Your task to perform on an android device: add a contact in the contacts app Image 0: 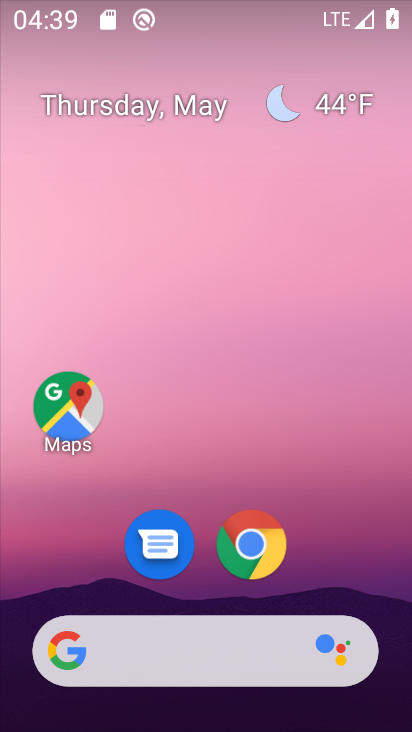
Step 0: drag from (313, 571) to (348, 48)
Your task to perform on an android device: add a contact in the contacts app Image 1: 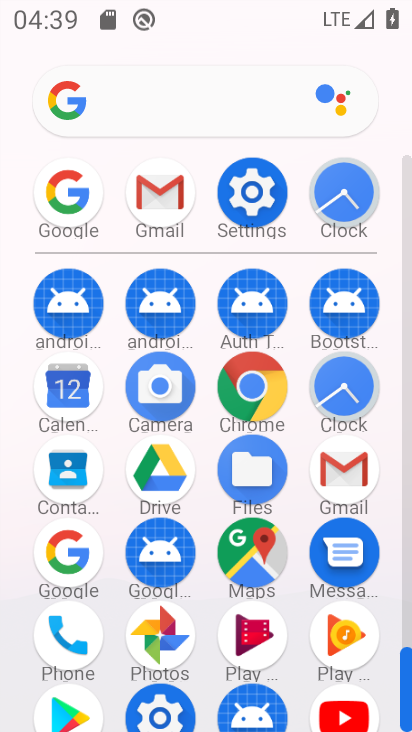
Step 1: click (55, 473)
Your task to perform on an android device: add a contact in the contacts app Image 2: 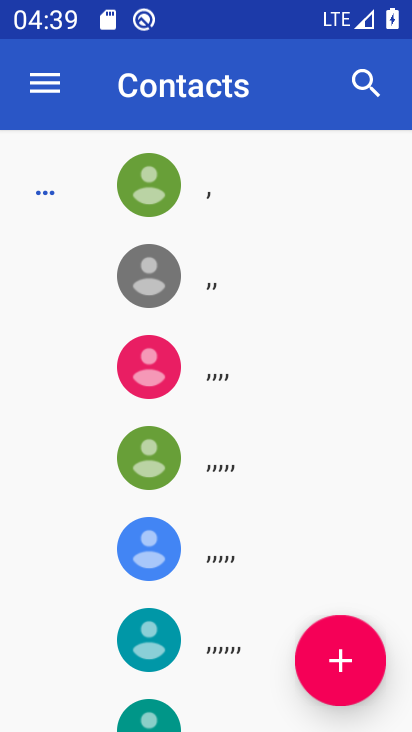
Step 2: click (320, 663)
Your task to perform on an android device: add a contact in the contacts app Image 3: 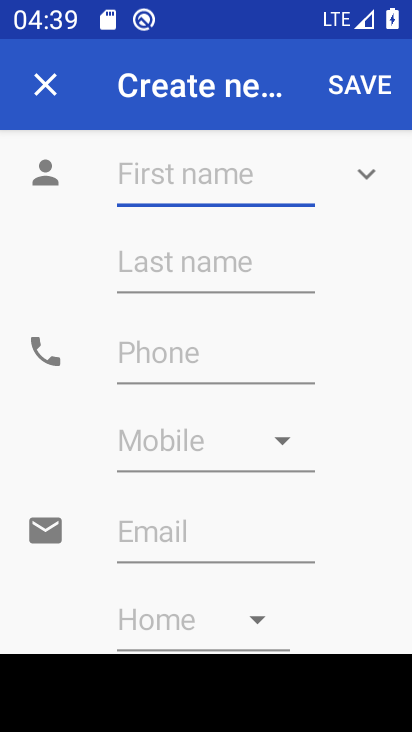
Step 3: type "rtyuiyyttyuiioiuytyu"
Your task to perform on an android device: add a contact in the contacts app Image 4: 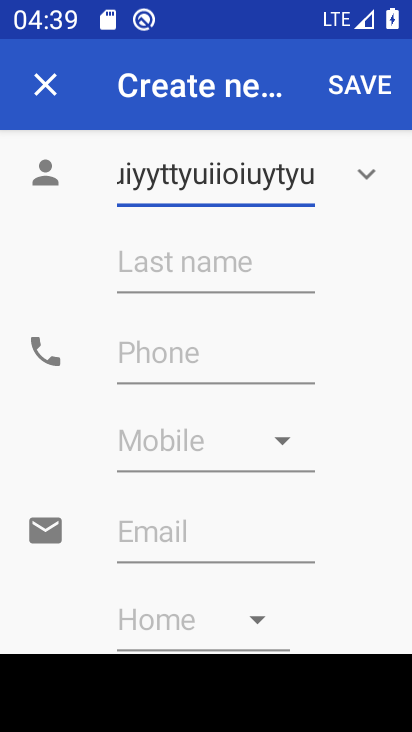
Step 4: click (200, 363)
Your task to perform on an android device: add a contact in the contacts app Image 5: 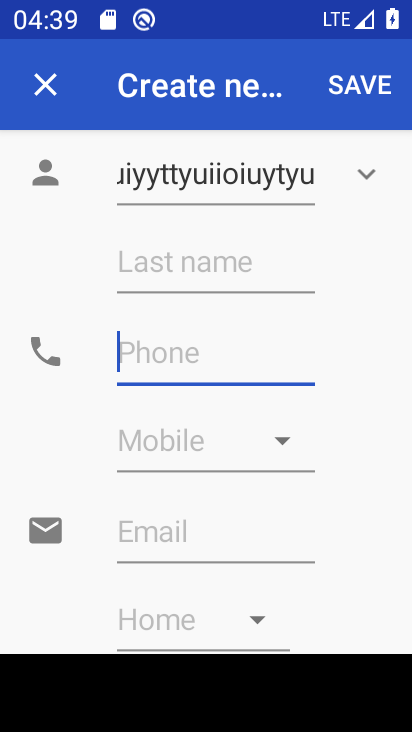
Step 5: type "67890543212"
Your task to perform on an android device: add a contact in the contacts app Image 6: 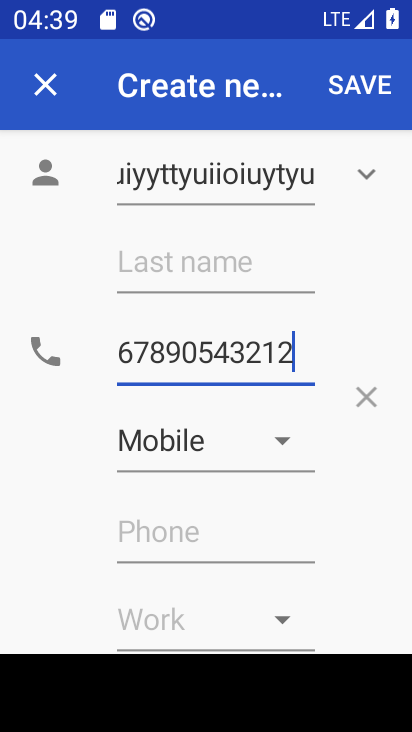
Step 6: click (355, 91)
Your task to perform on an android device: add a contact in the contacts app Image 7: 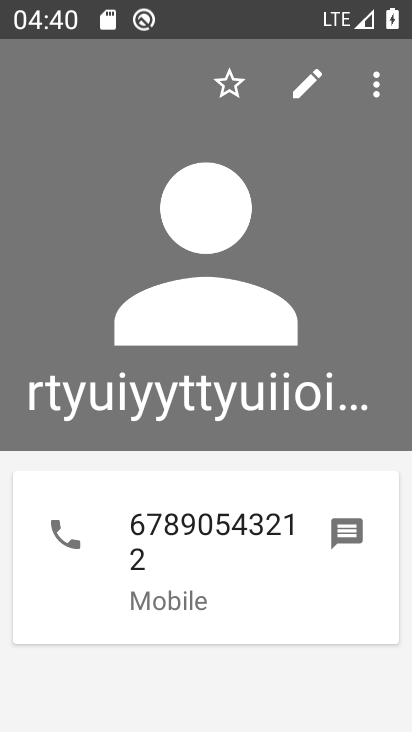
Step 7: task complete